Your task to perform on an android device: Open Google Chrome and click the shortcut for Amazon.com Image 0: 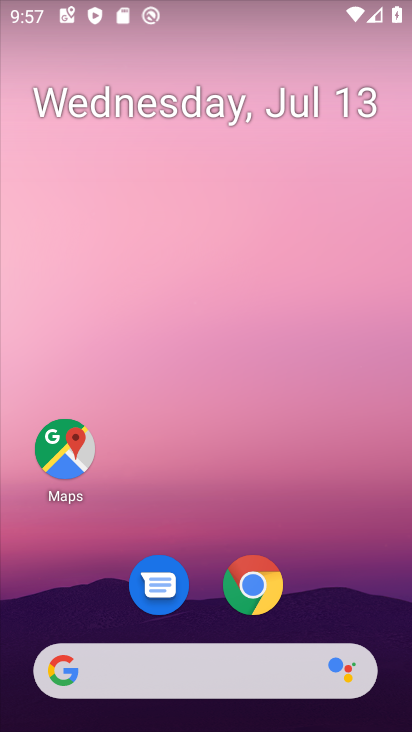
Step 0: click (264, 588)
Your task to perform on an android device: Open Google Chrome and click the shortcut for Amazon.com Image 1: 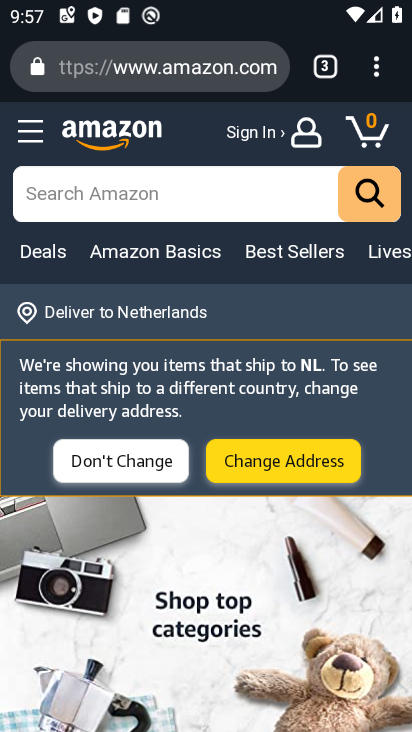
Step 1: click (377, 75)
Your task to perform on an android device: Open Google Chrome and click the shortcut for Amazon.com Image 2: 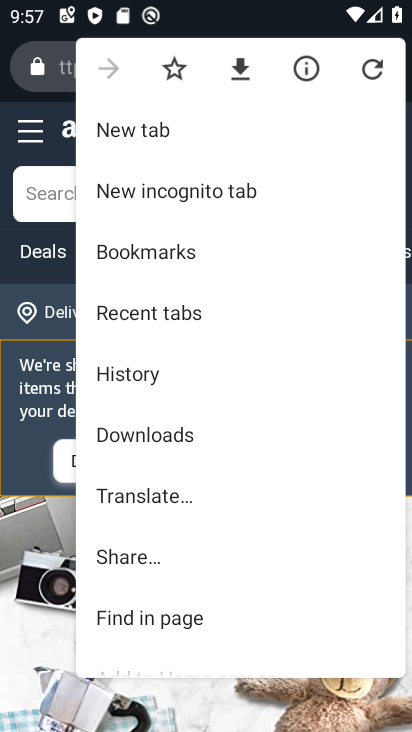
Step 2: click (294, 131)
Your task to perform on an android device: Open Google Chrome and click the shortcut for Amazon.com Image 3: 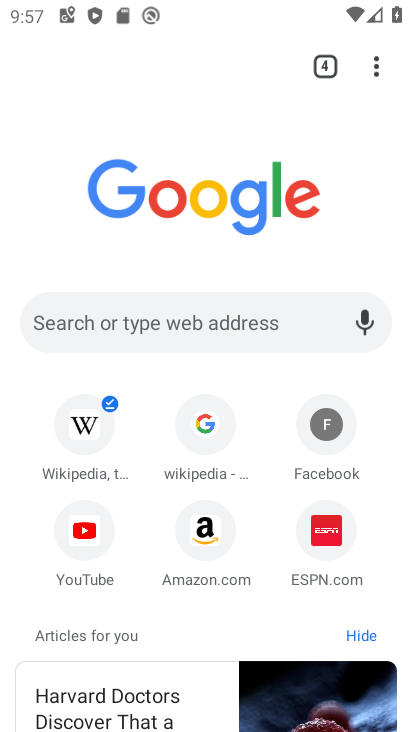
Step 3: click (211, 526)
Your task to perform on an android device: Open Google Chrome and click the shortcut for Amazon.com Image 4: 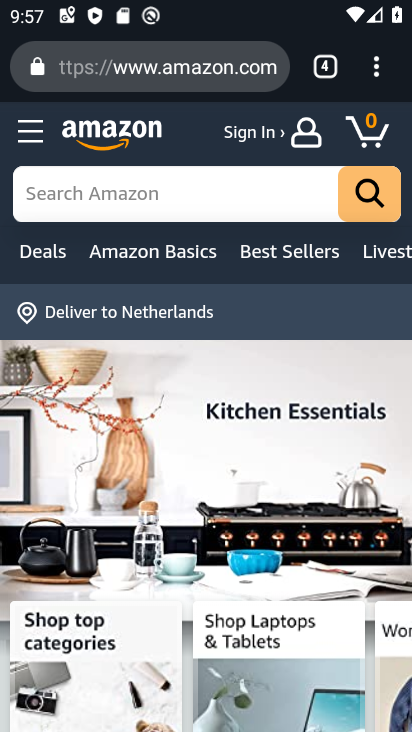
Step 4: task complete